Your task to perform on an android device: Open CNN.com Image 0: 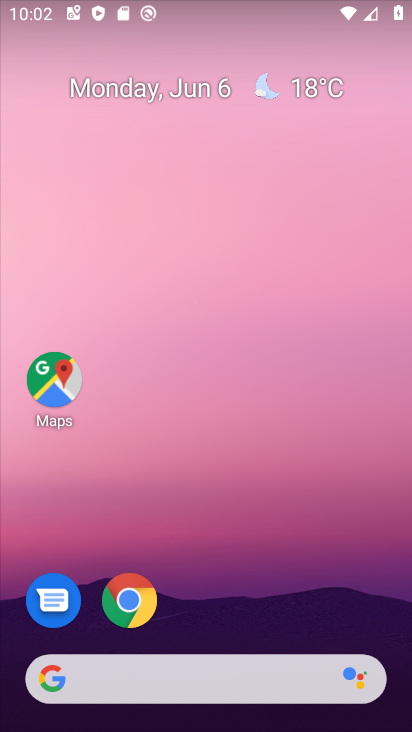
Step 0: drag from (252, 541) to (239, 20)
Your task to perform on an android device: Open CNN.com Image 1: 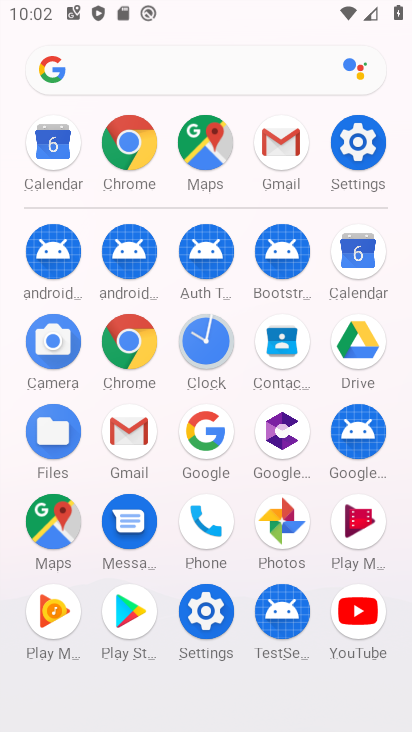
Step 1: click (129, 338)
Your task to perform on an android device: Open CNN.com Image 2: 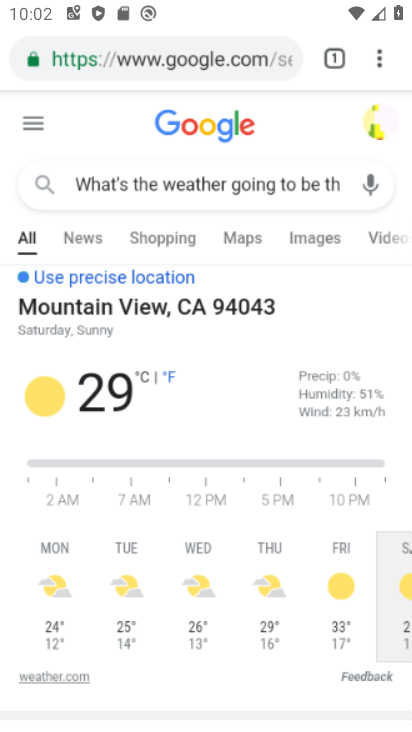
Step 2: click (201, 49)
Your task to perform on an android device: Open CNN.com Image 3: 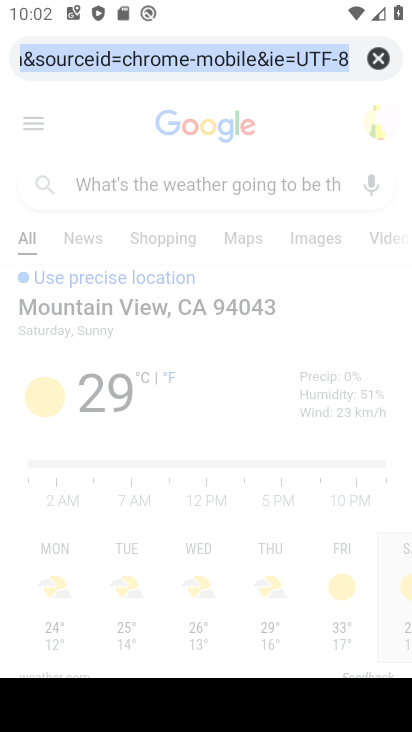
Step 3: click (371, 51)
Your task to perform on an android device: Open CNN.com Image 4: 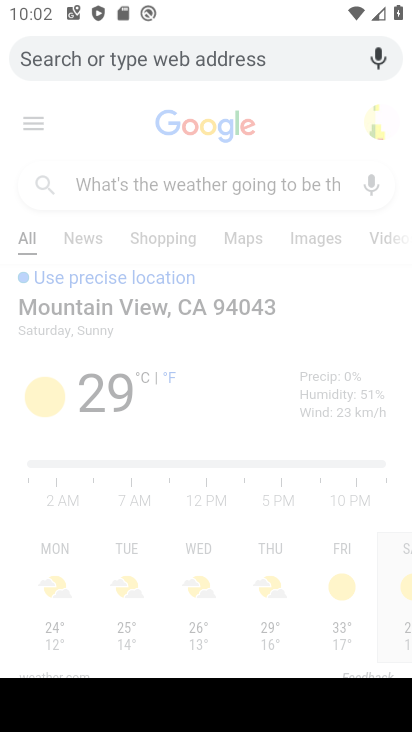
Step 4: type "CNN.com"
Your task to perform on an android device: Open CNN.com Image 5: 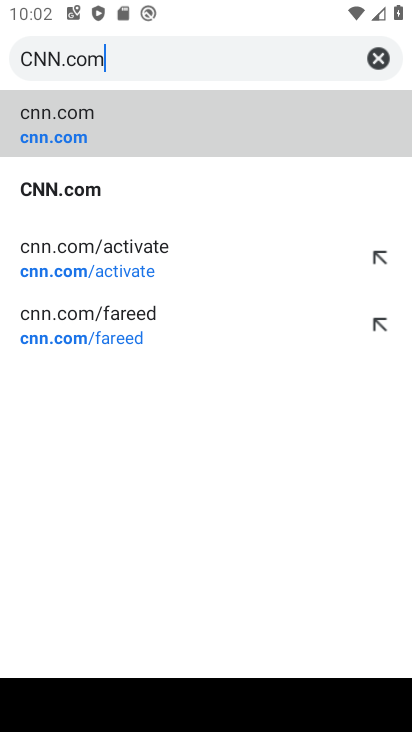
Step 5: type ""
Your task to perform on an android device: Open CNN.com Image 6: 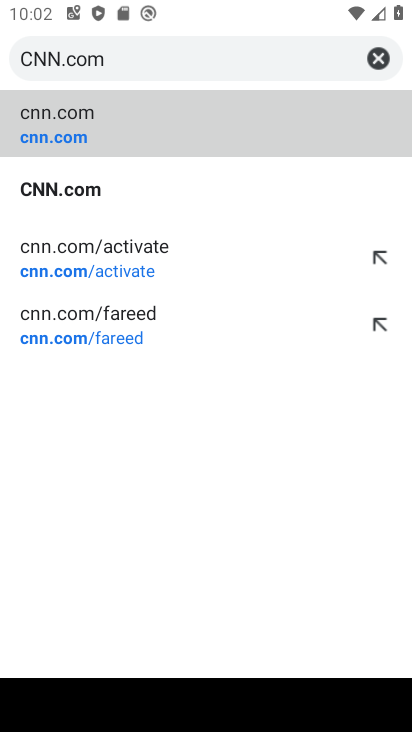
Step 6: click (134, 131)
Your task to perform on an android device: Open CNN.com Image 7: 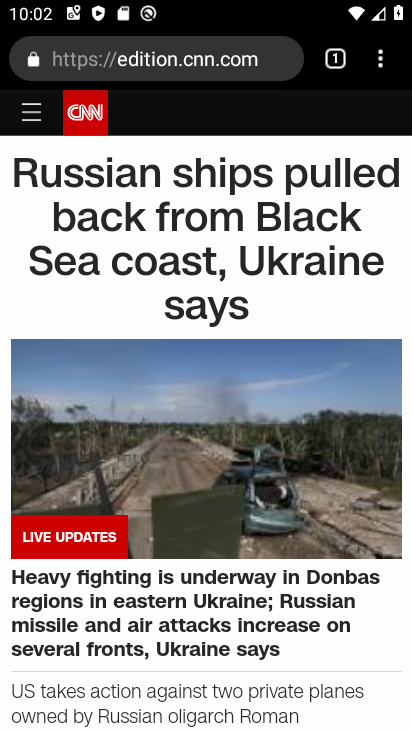
Step 7: task complete